Your task to perform on an android device: see tabs open on other devices in the chrome app Image 0: 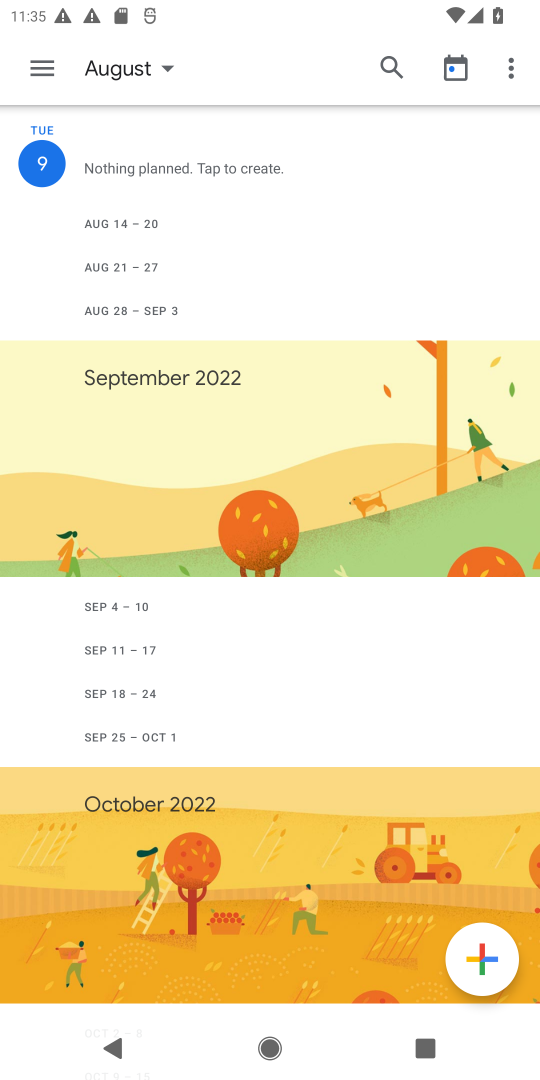
Step 0: press home button
Your task to perform on an android device: see tabs open on other devices in the chrome app Image 1: 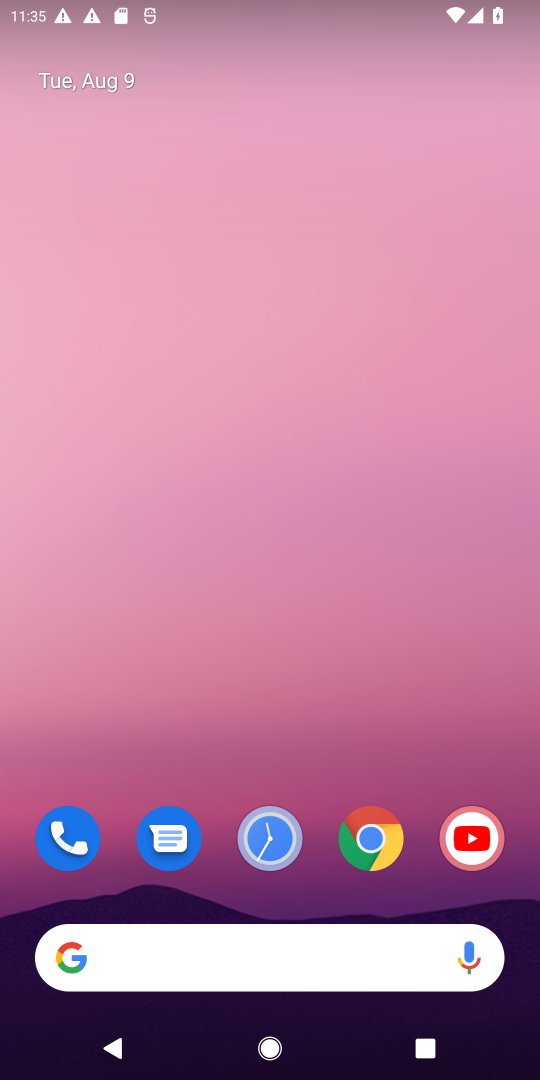
Step 1: click (377, 851)
Your task to perform on an android device: see tabs open on other devices in the chrome app Image 2: 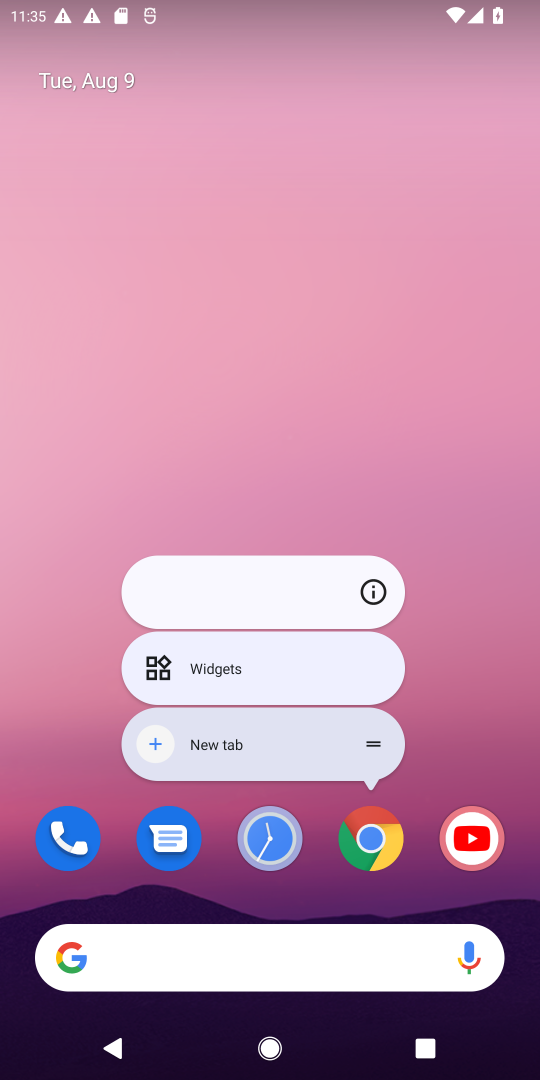
Step 2: click (371, 845)
Your task to perform on an android device: see tabs open on other devices in the chrome app Image 3: 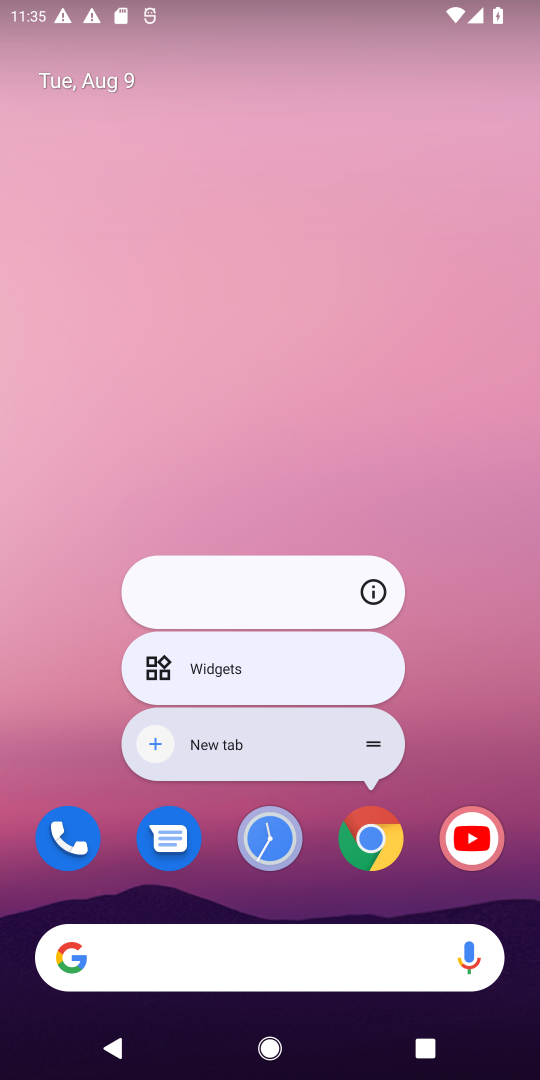
Step 3: click (370, 844)
Your task to perform on an android device: see tabs open on other devices in the chrome app Image 4: 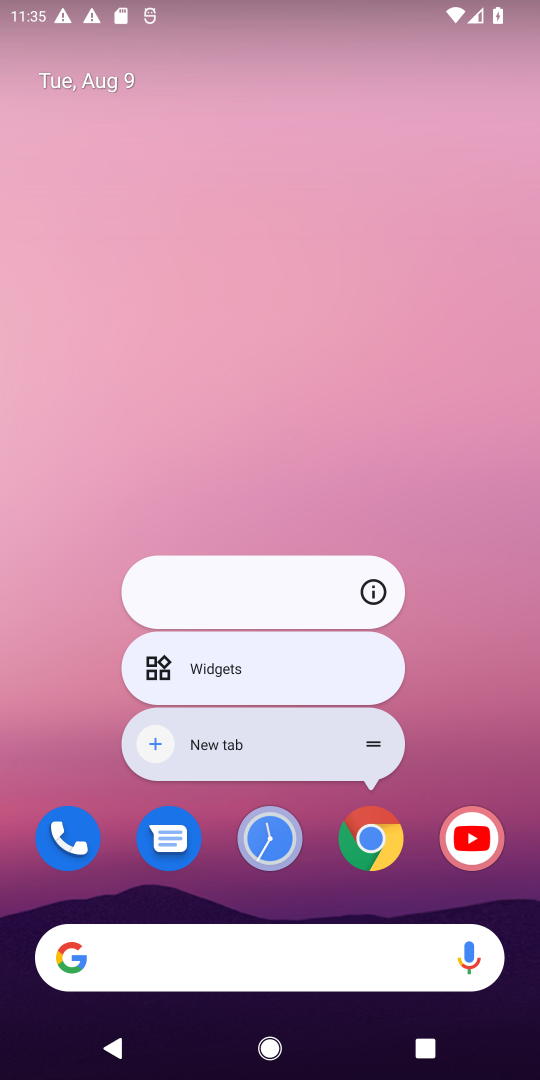
Step 4: click (369, 839)
Your task to perform on an android device: see tabs open on other devices in the chrome app Image 5: 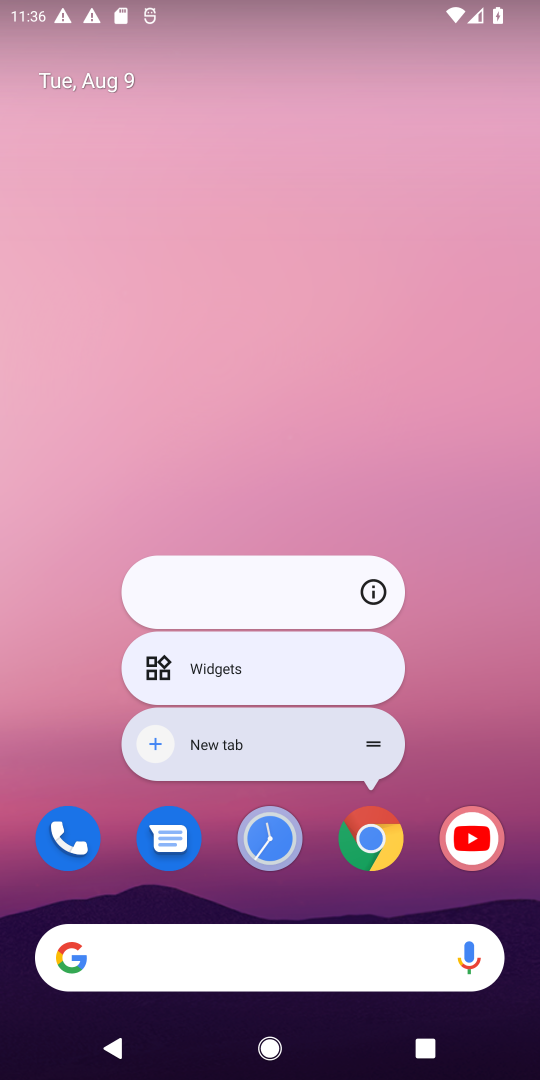
Step 5: click (371, 837)
Your task to perform on an android device: see tabs open on other devices in the chrome app Image 6: 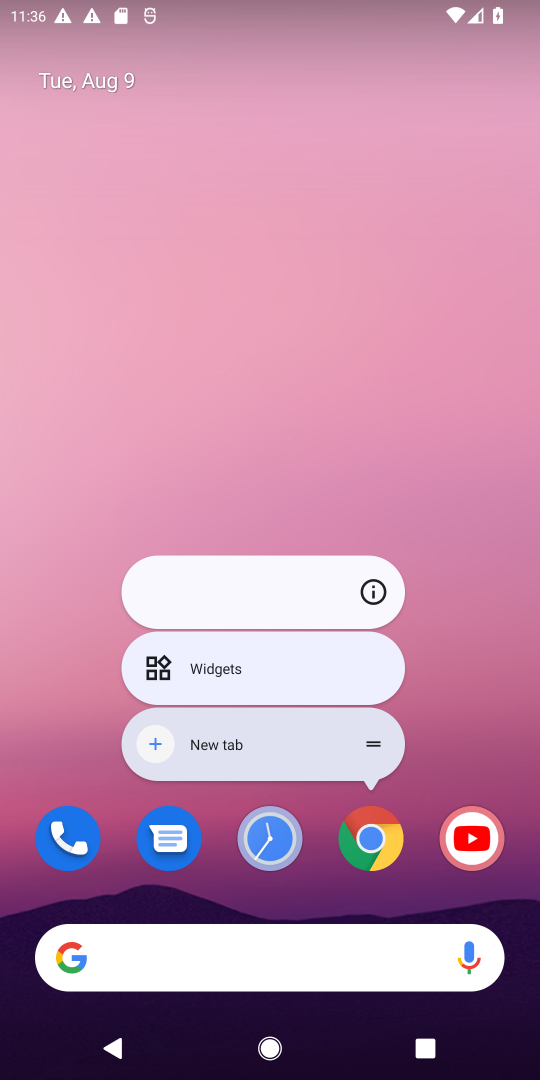
Step 6: click (364, 834)
Your task to perform on an android device: see tabs open on other devices in the chrome app Image 7: 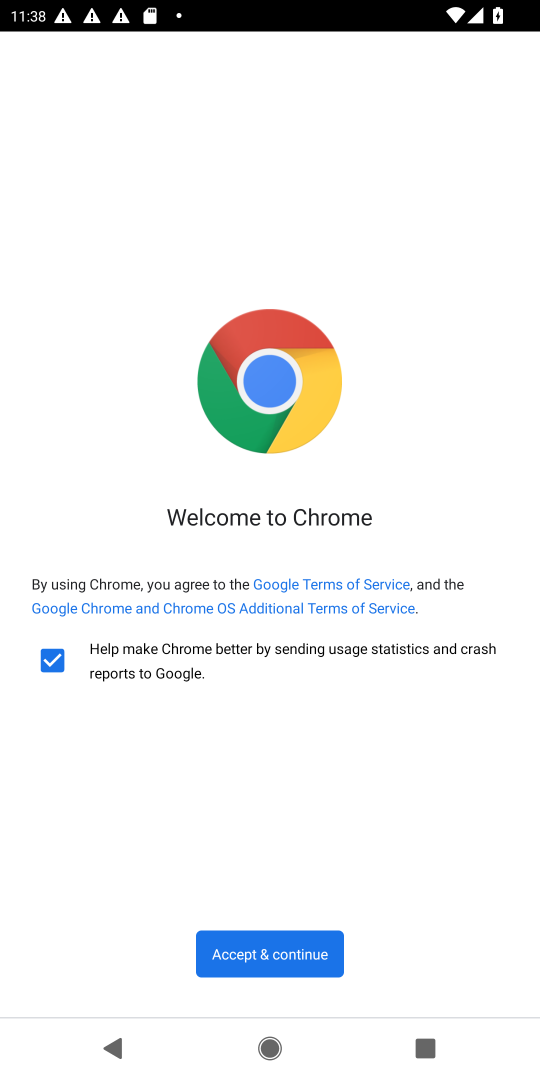
Step 7: click (281, 951)
Your task to perform on an android device: see tabs open on other devices in the chrome app Image 8: 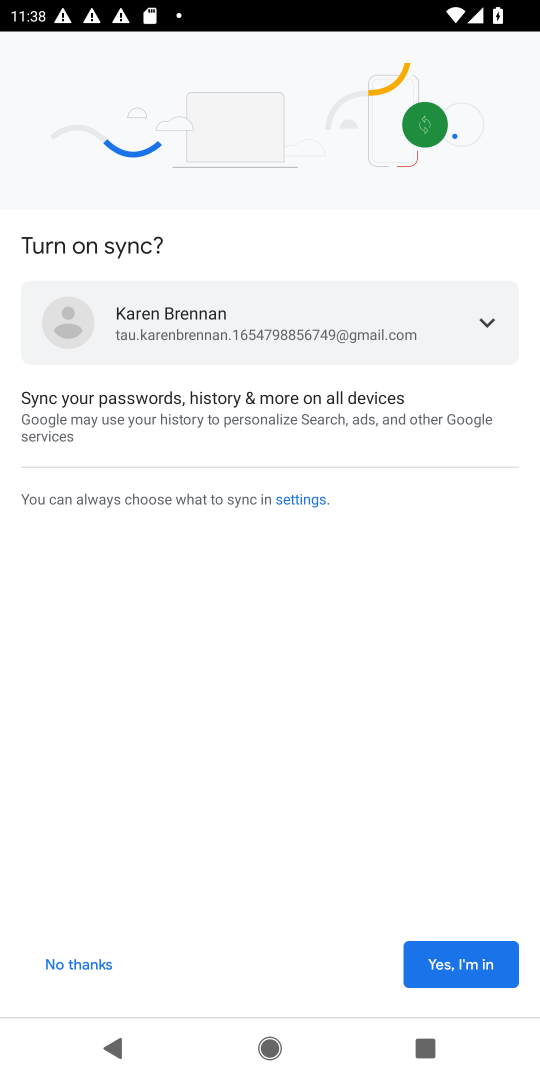
Step 8: click (440, 974)
Your task to perform on an android device: see tabs open on other devices in the chrome app Image 9: 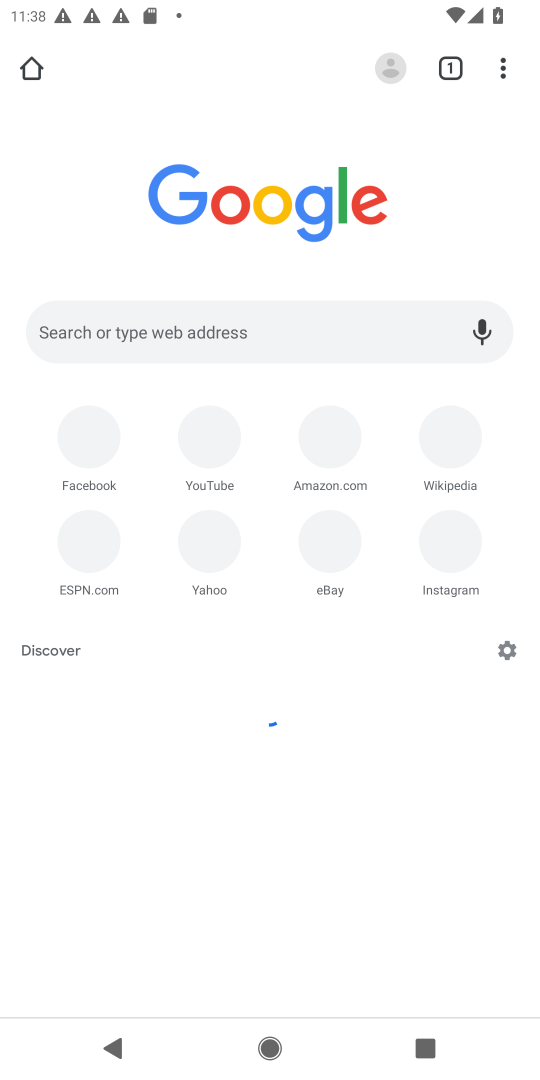
Step 9: click (450, 67)
Your task to perform on an android device: see tabs open on other devices in the chrome app Image 10: 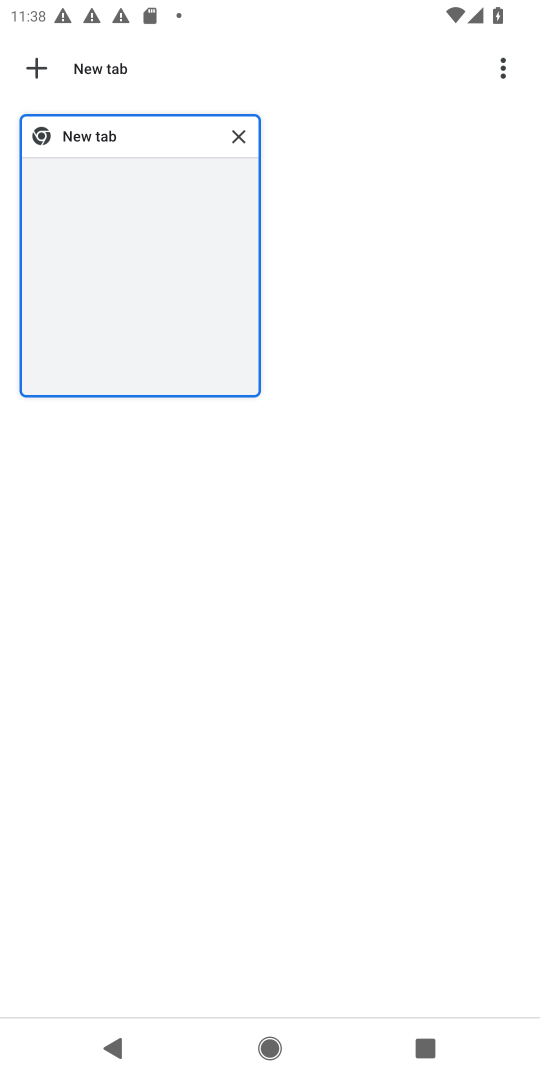
Step 10: task complete